Your task to perform on an android device: Go to Maps Image 0: 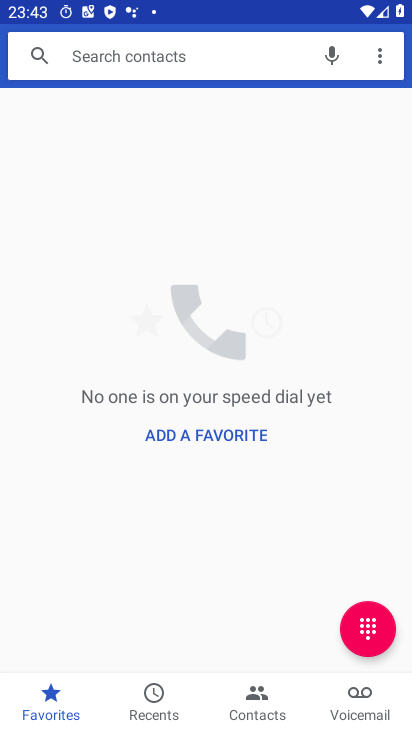
Step 0: press home button
Your task to perform on an android device: Go to Maps Image 1: 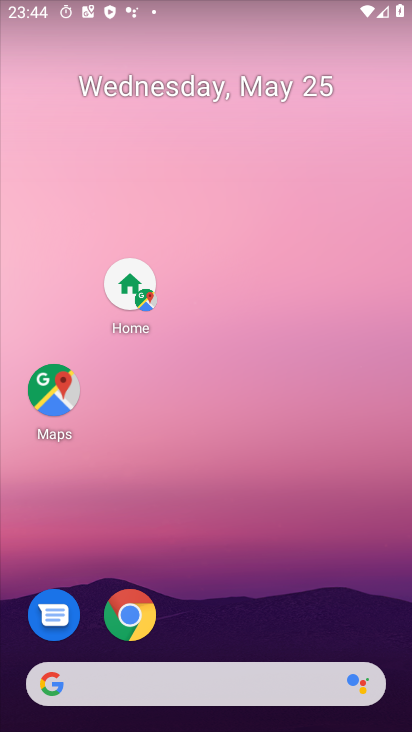
Step 1: click (65, 387)
Your task to perform on an android device: Go to Maps Image 2: 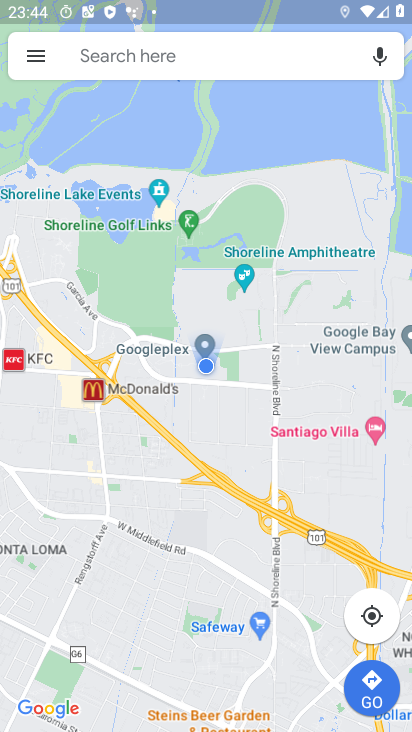
Step 2: task complete